Your task to perform on an android device: Open CNN.com Image 0: 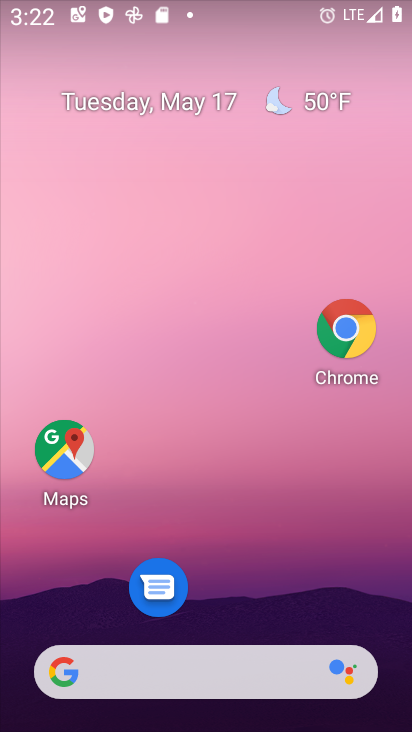
Step 0: click (332, 347)
Your task to perform on an android device: Open CNN.com Image 1: 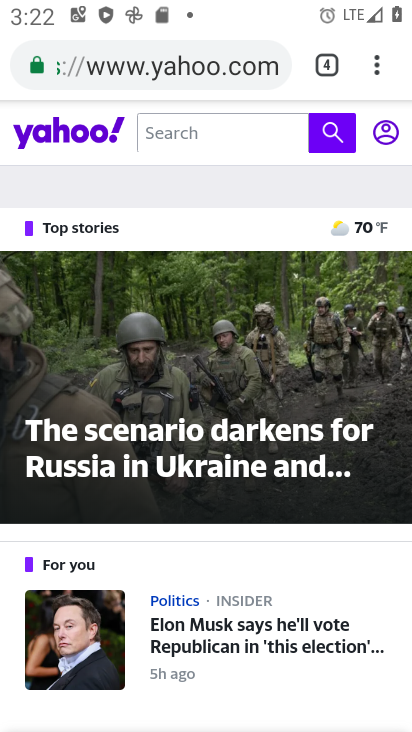
Step 1: click (255, 86)
Your task to perform on an android device: Open CNN.com Image 2: 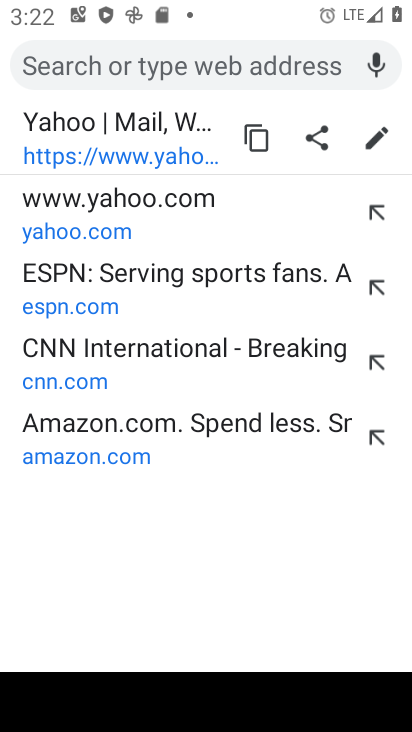
Step 2: type "cnn"
Your task to perform on an android device: Open CNN.com Image 3: 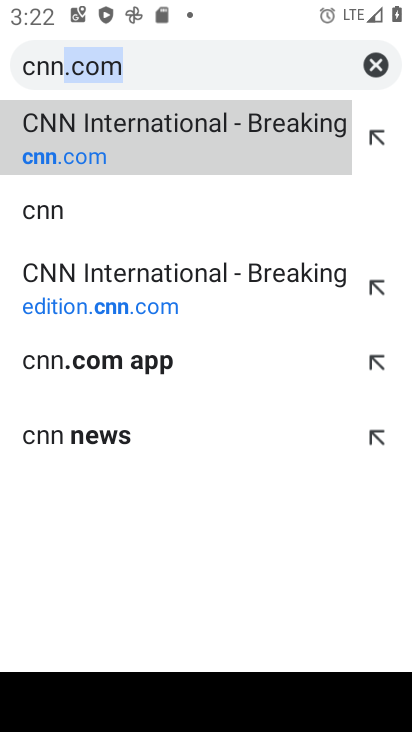
Step 3: click (133, 162)
Your task to perform on an android device: Open CNN.com Image 4: 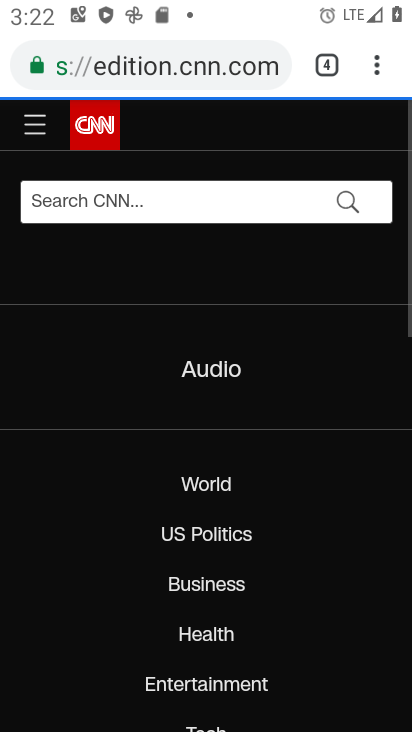
Step 4: task complete